Your task to perform on an android device: Toggle the flashlight Image 0: 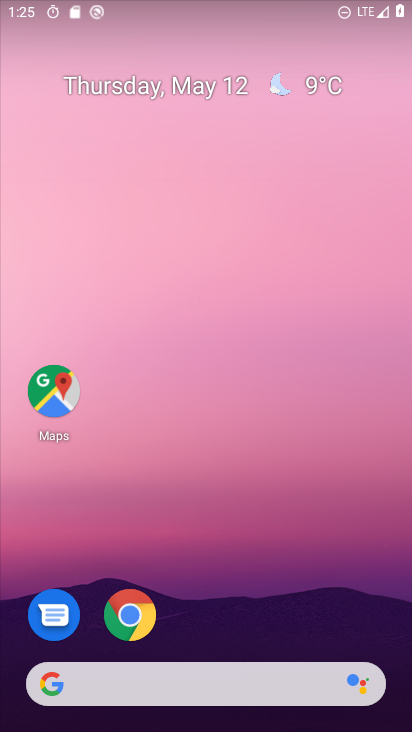
Step 0: drag from (235, 22) to (318, 498)
Your task to perform on an android device: Toggle the flashlight Image 1: 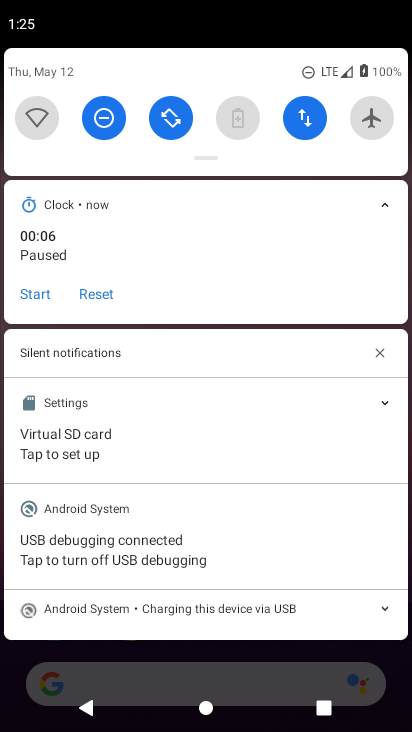
Step 1: task complete